Your task to perform on an android device: Search for flights from Mexico city to Zurich Image 0: 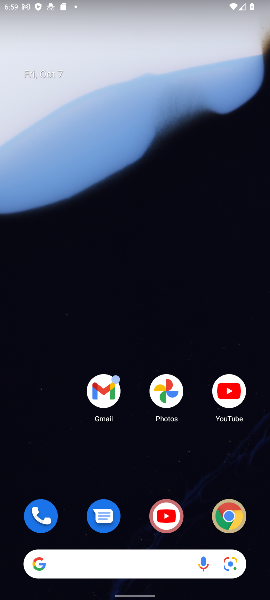
Step 0: drag from (132, 543) to (146, 14)
Your task to perform on an android device: Search for flights from Mexico city to Zurich Image 1: 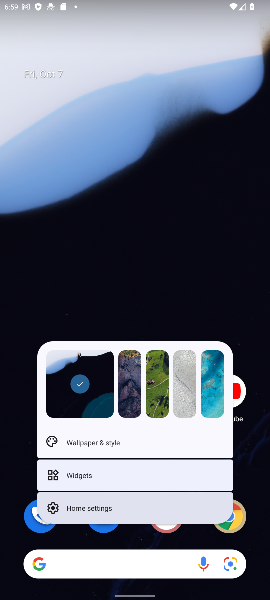
Step 1: press home button
Your task to perform on an android device: Search for flights from Mexico city to Zurich Image 2: 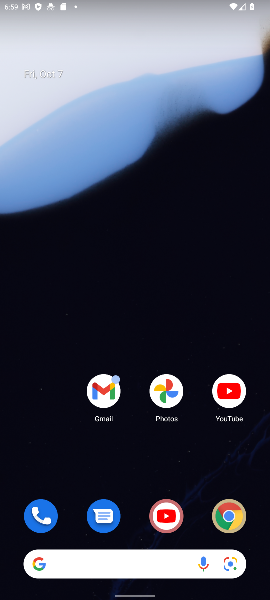
Step 2: click (145, 560)
Your task to perform on an android device: Search for flights from Mexico city to Zurich Image 3: 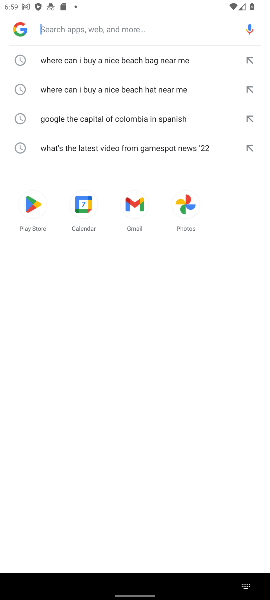
Step 3: type "Mexico city to Zurich"
Your task to perform on an android device: Search for flights from Mexico city to Zurich Image 4: 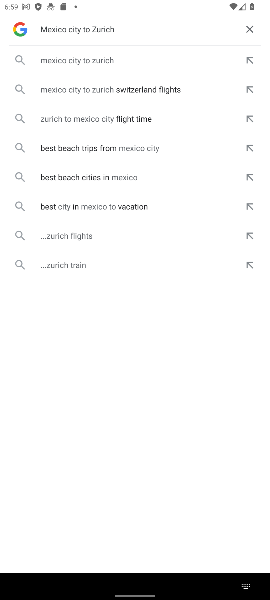
Step 4: click (115, 56)
Your task to perform on an android device: Search for flights from Mexico city to Zurich Image 5: 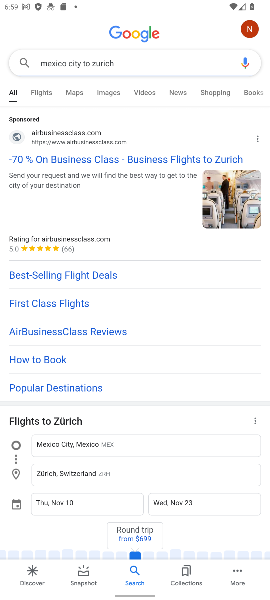
Step 5: task complete